Your task to perform on an android device: Show me popular games on the Play Store Image 0: 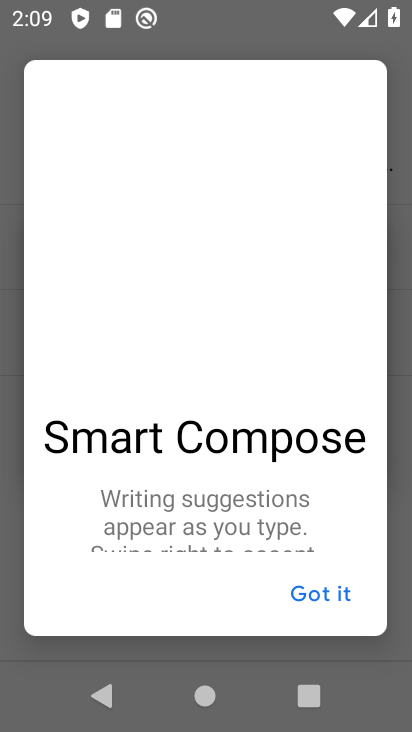
Step 0: press home button
Your task to perform on an android device: Show me popular games on the Play Store Image 1: 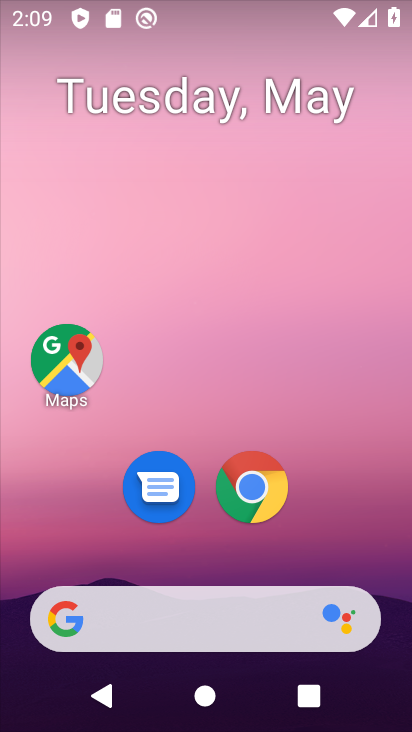
Step 1: drag from (88, 595) to (202, 142)
Your task to perform on an android device: Show me popular games on the Play Store Image 2: 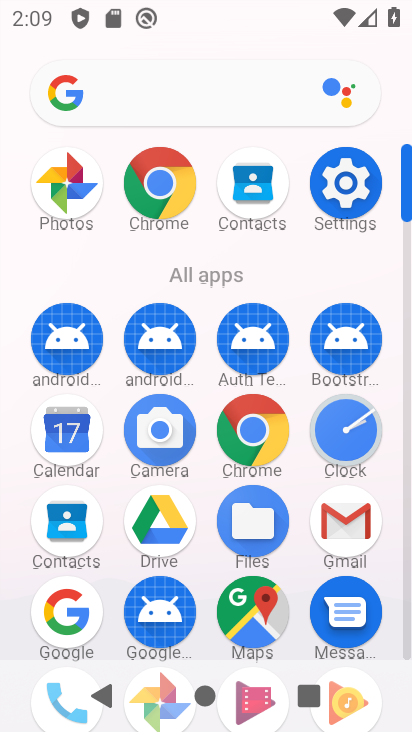
Step 2: drag from (127, 571) to (172, 400)
Your task to perform on an android device: Show me popular games on the Play Store Image 3: 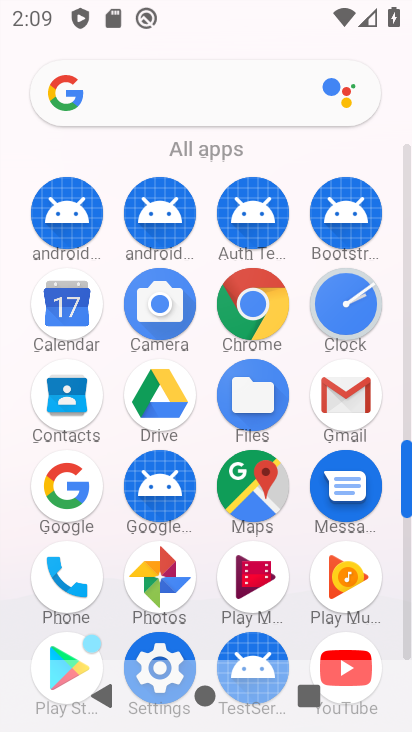
Step 3: click (78, 659)
Your task to perform on an android device: Show me popular games on the Play Store Image 4: 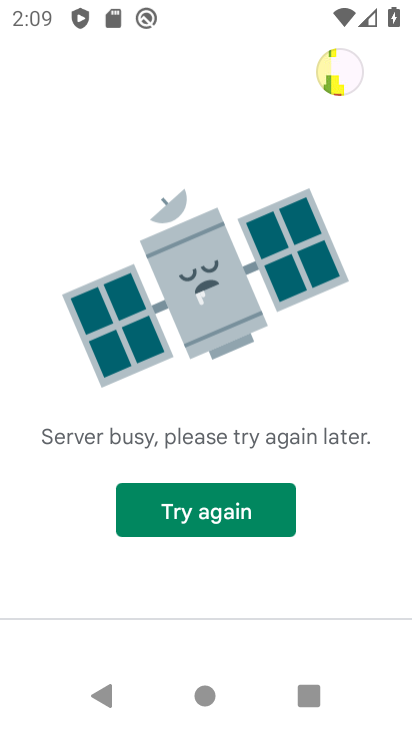
Step 4: task complete